Your task to perform on an android device: turn off location Image 0: 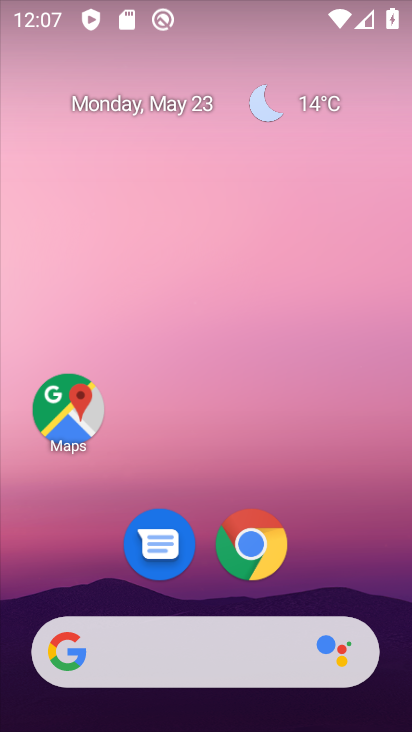
Step 0: drag from (340, 522) to (294, 92)
Your task to perform on an android device: turn off location Image 1: 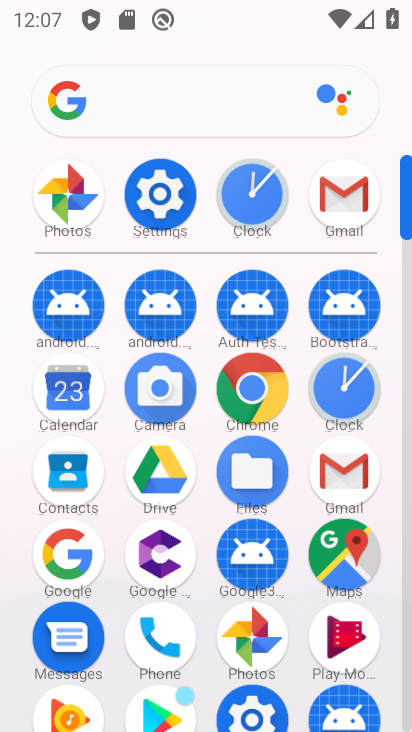
Step 1: click (161, 199)
Your task to perform on an android device: turn off location Image 2: 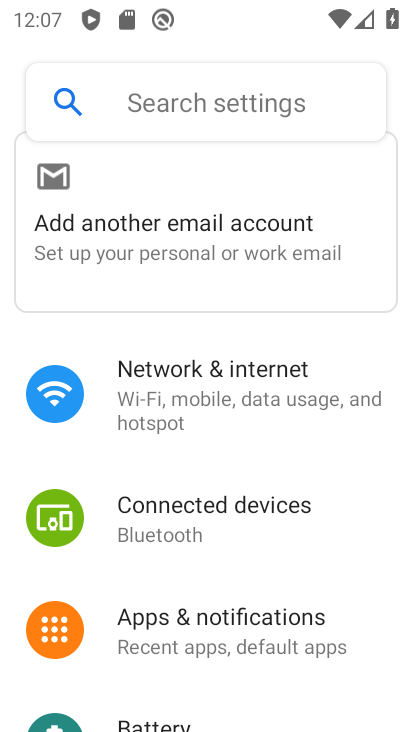
Step 2: click (170, 391)
Your task to perform on an android device: turn off location Image 3: 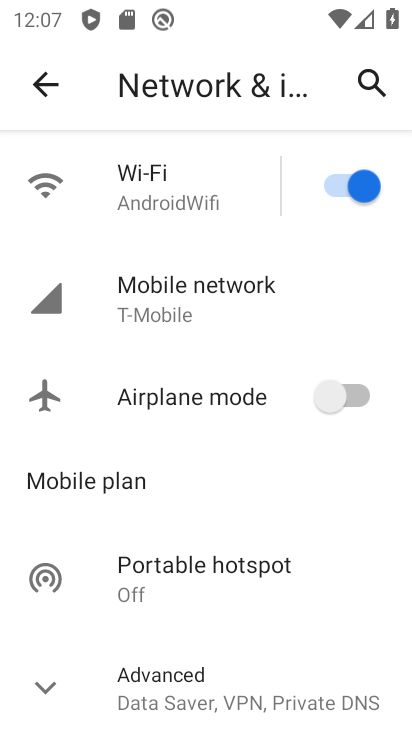
Step 3: drag from (233, 614) to (195, 193)
Your task to perform on an android device: turn off location Image 4: 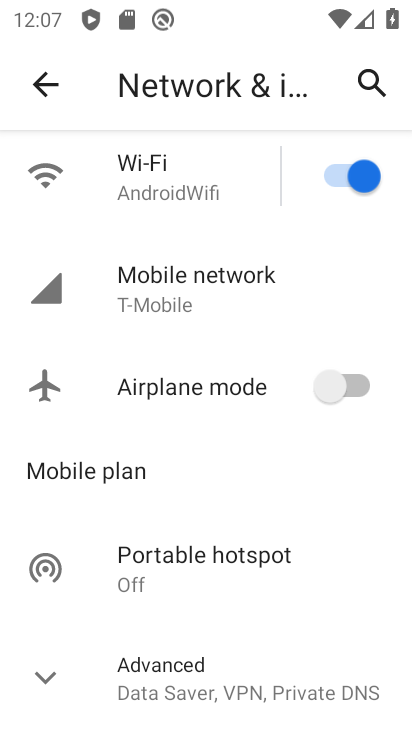
Step 4: click (39, 79)
Your task to perform on an android device: turn off location Image 5: 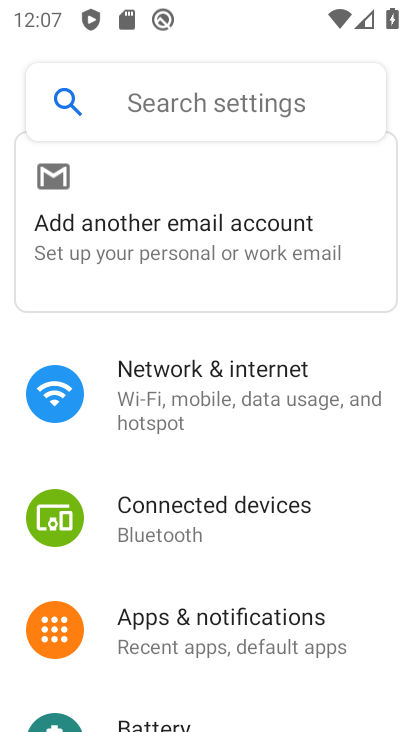
Step 5: drag from (214, 590) to (180, 87)
Your task to perform on an android device: turn off location Image 6: 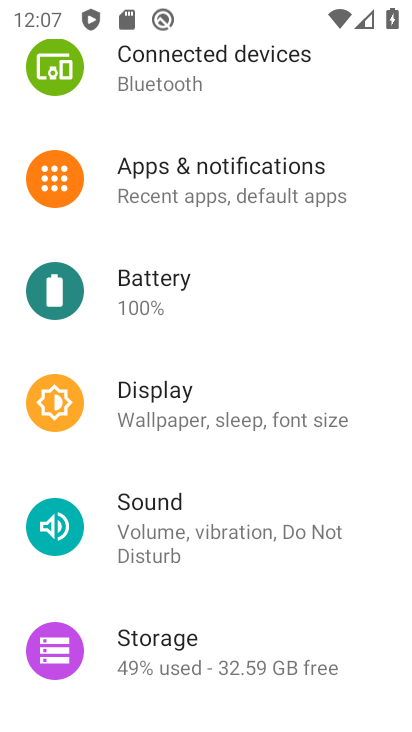
Step 6: drag from (212, 627) to (134, 131)
Your task to perform on an android device: turn off location Image 7: 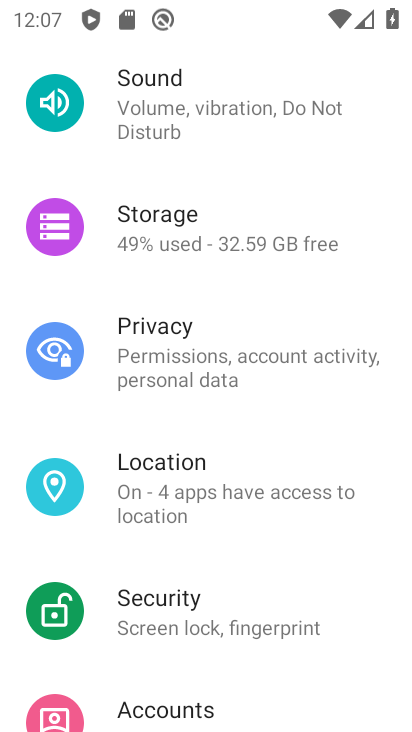
Step 7: click (179, 500)
Your task to perform on an android device: turn off location Image 8: 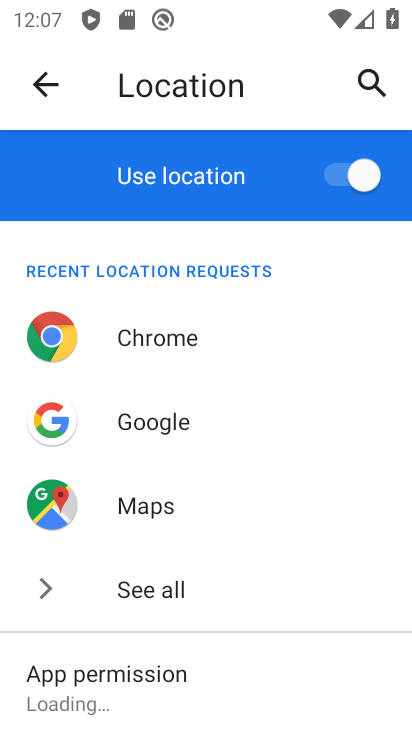
Step 8: click (331, 175)
Your task to perform on an android device: turn off location Image 9: 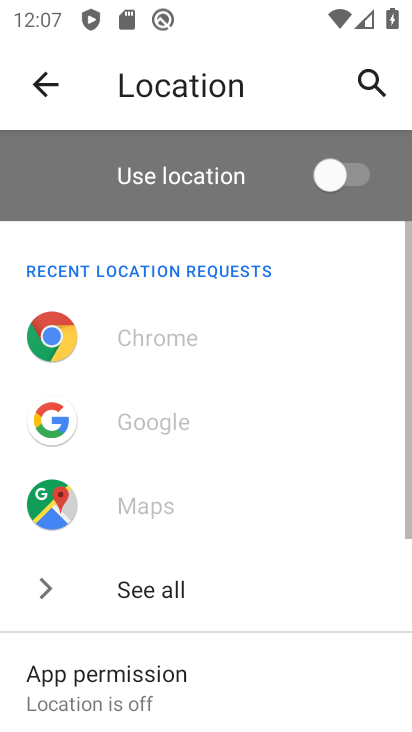
Step 9: task complete